Your task to perform on an android device: open app "Walmart Shopping & Grocery" Image 0: 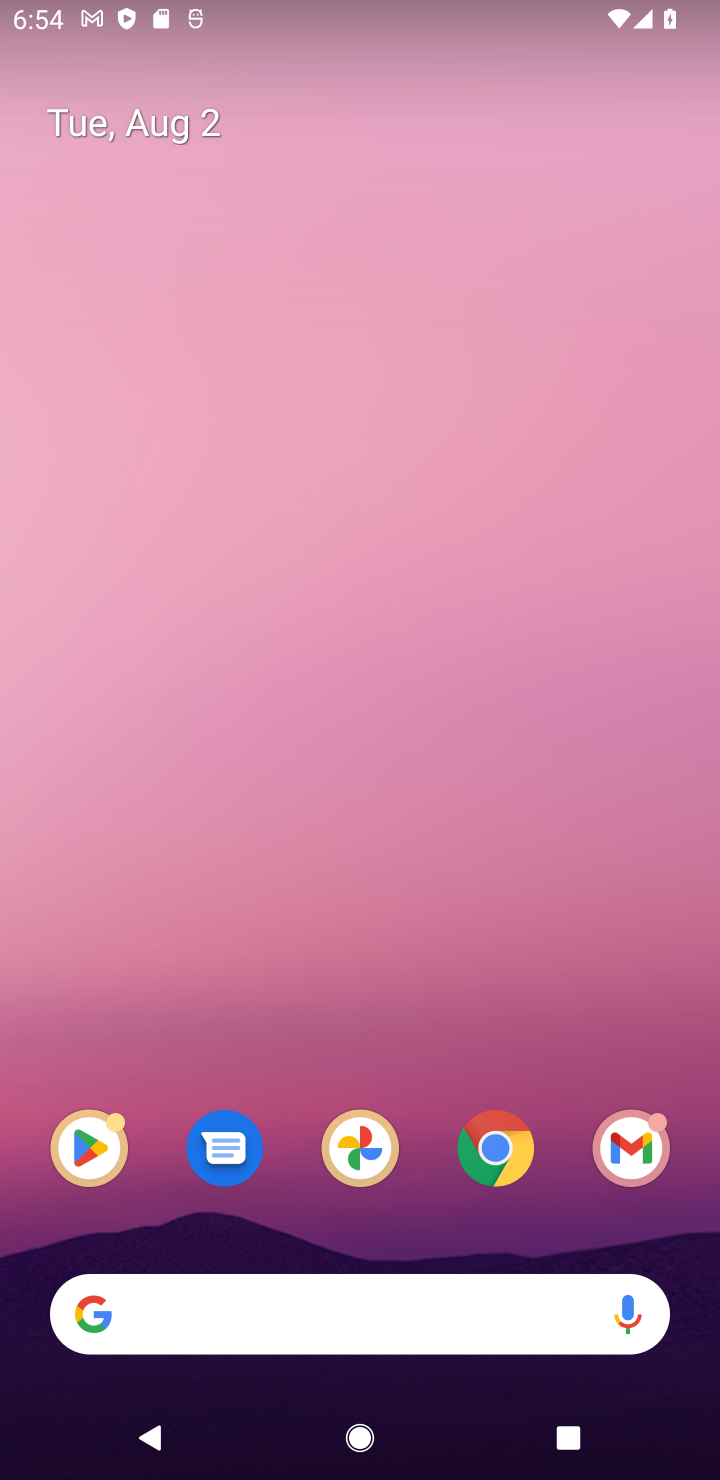
Step 0: drag from (588, 1084) to (207, 106)
Your task to perform on an android device: open app "Walmart Shopping & Grocery" Image 1: 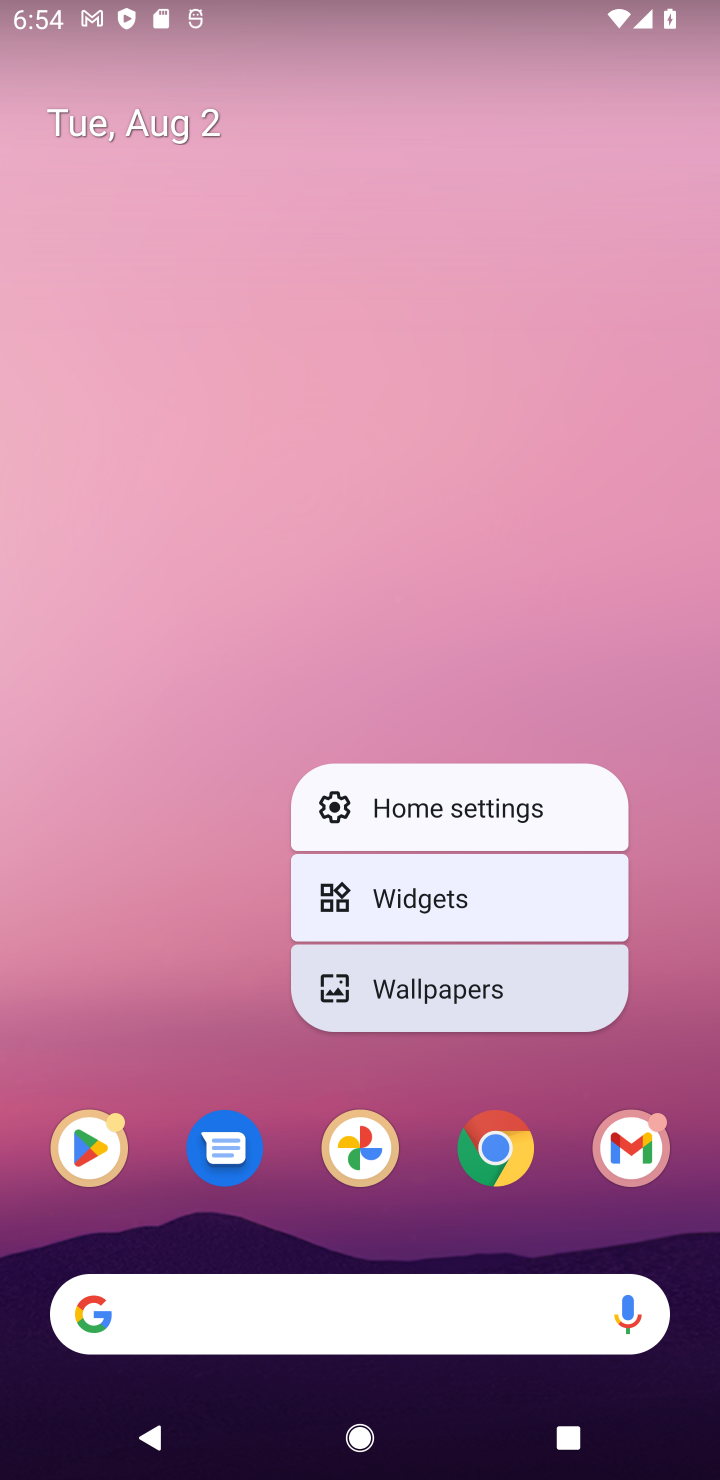
Step 1: click (436, 507)
Your task to perform on an android device: open app "Walmart Shopping & Grocery" Image 2: 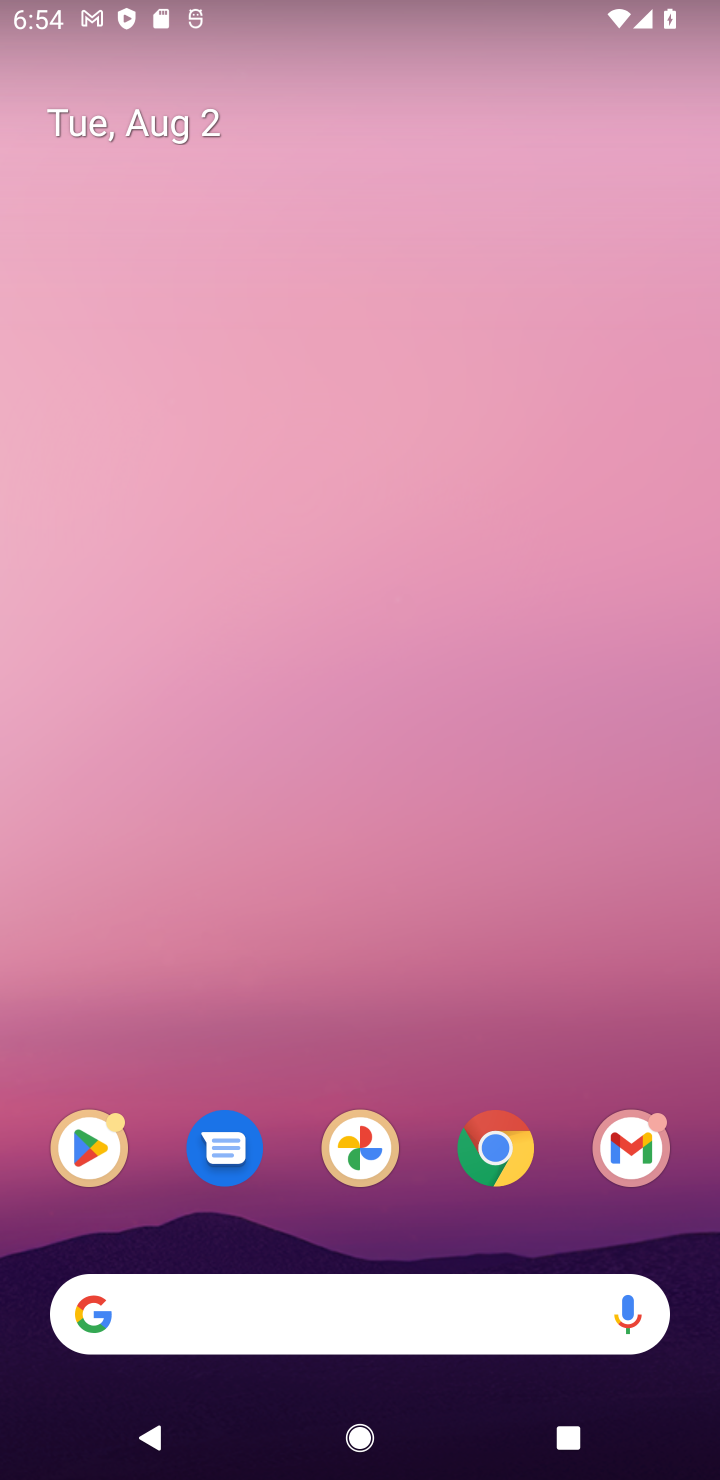
Step 2: drag from (583, 1117) to (328, 85)
Your task to perform on an android device: open app "Walmart Shopping & Grocery" Image 3: 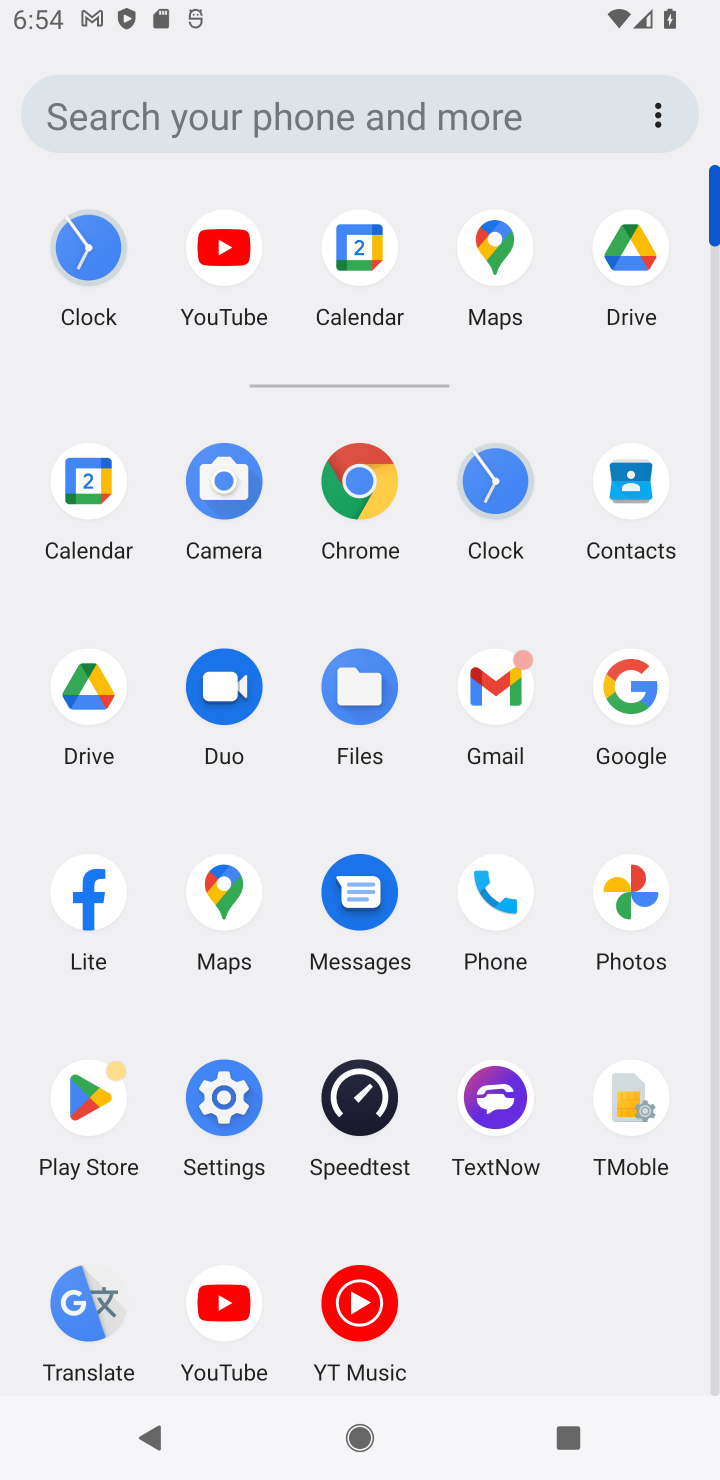
Step 3: click (105, 1116)
Your task to perform on an android device: open app "Walmart Shopping & Grocery" Image 4: 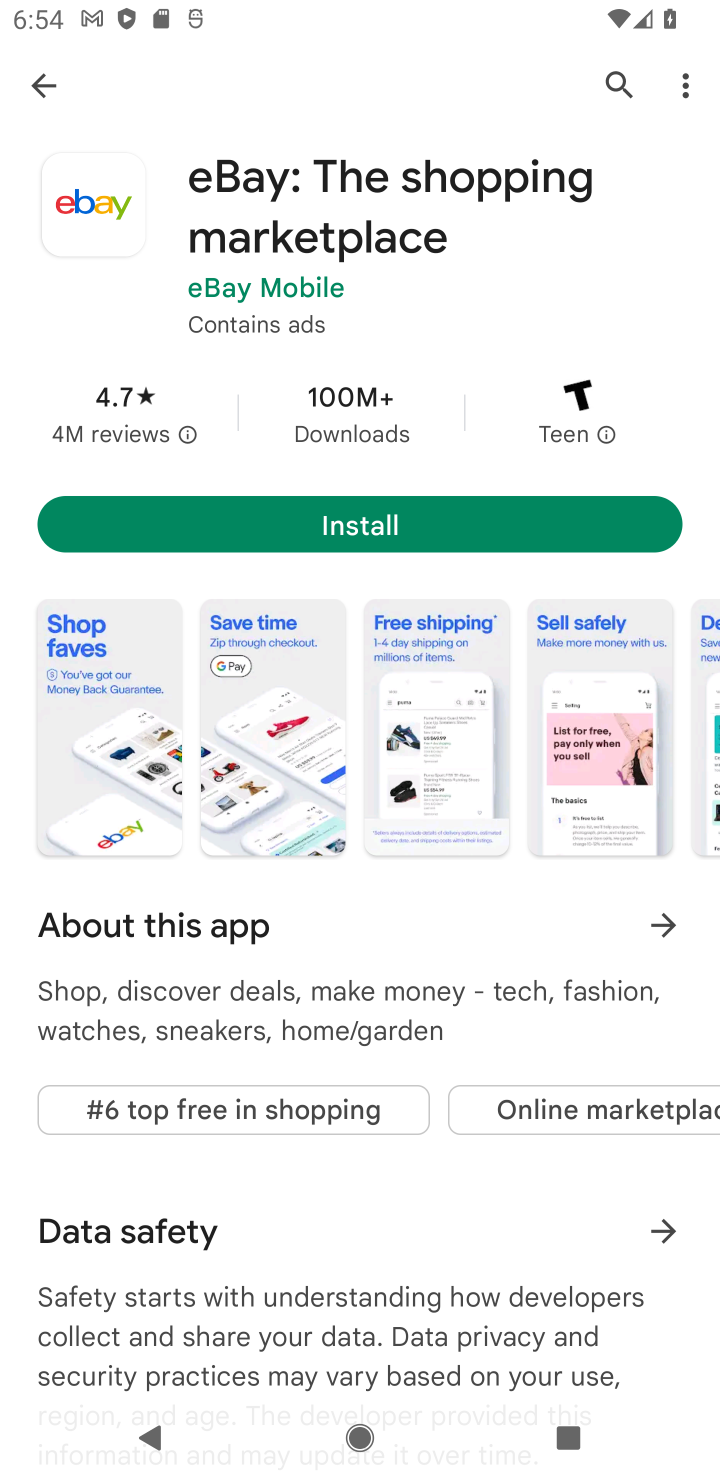
Step 4: press back button
Your task to perform on an android device: open app "Walmart Shopping & Grocery" Image 5: 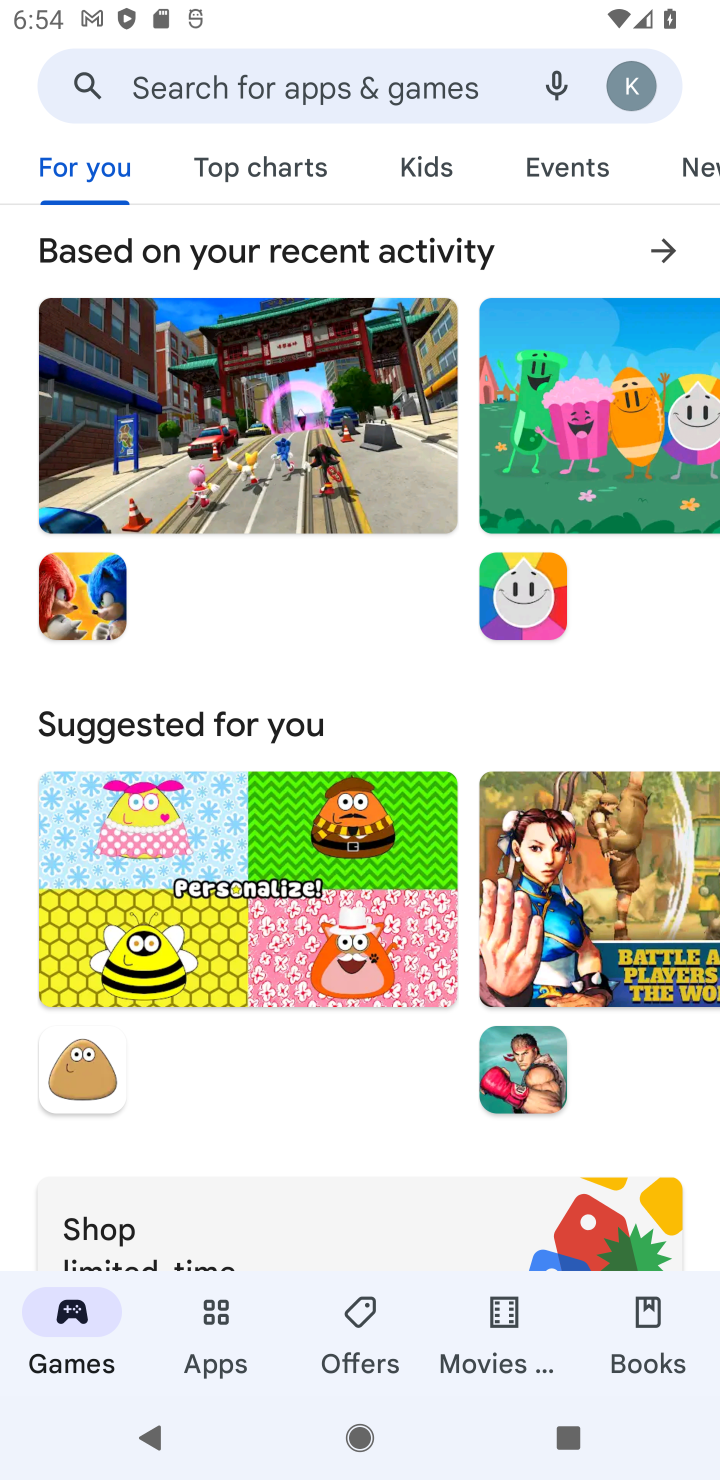
Step 5: click (124, 83)
Your task to perform on an android device: open app "Walmart Shopping & Grocery" Image 6: 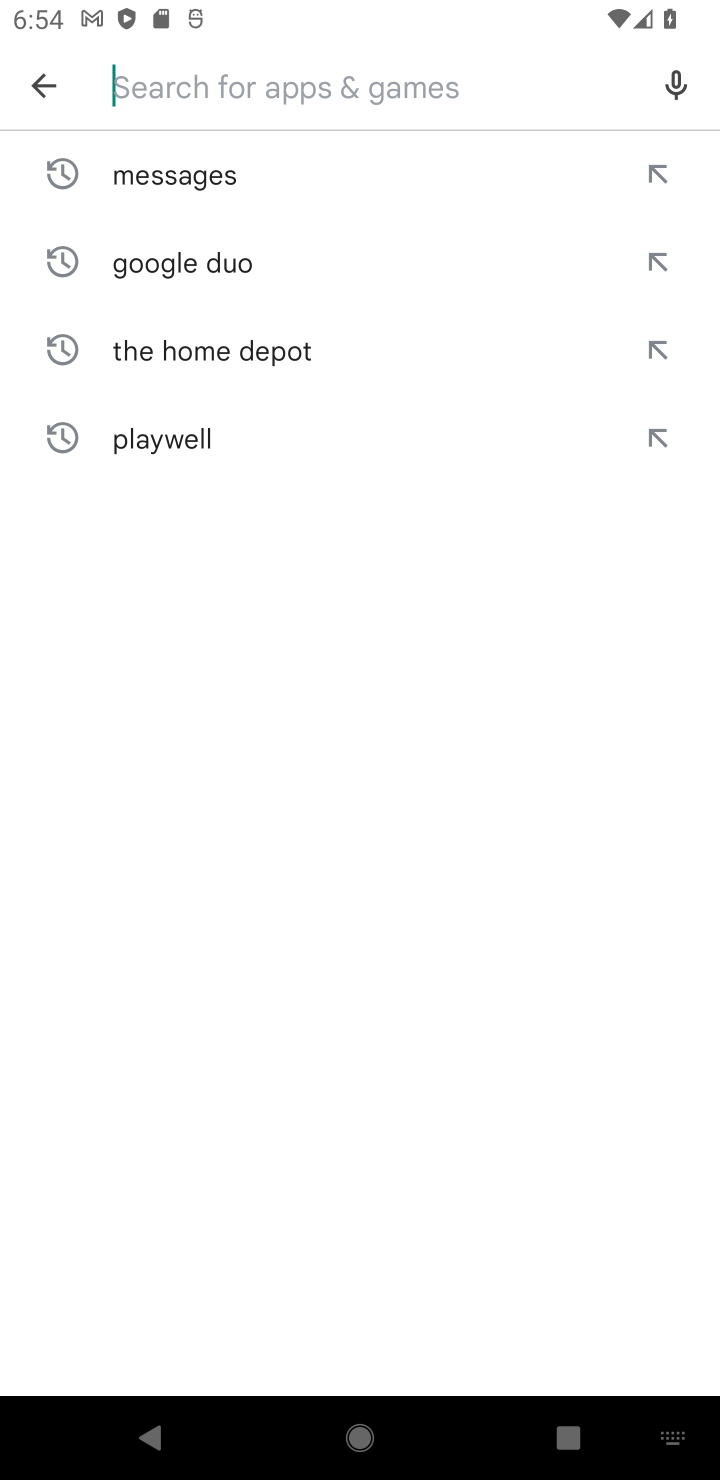
Step 6: type "Walmart Shopping & Grocery"
Your task to perform on an android device: open app "Walmart Shopping & Grocery" Image 7: 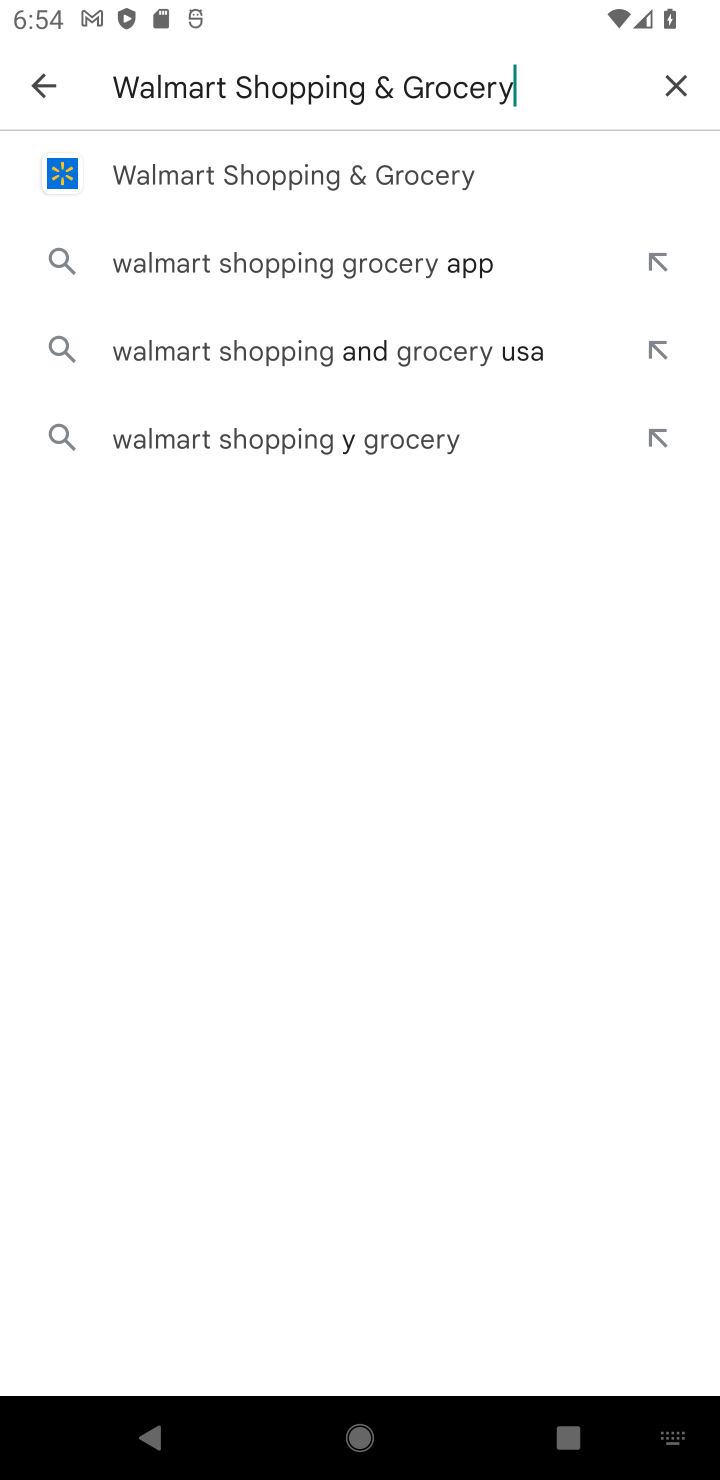
Step 7: click (246, 184)
Your task to perform on an android device: open app "Walmart Shopping & Grocery" Image 8: 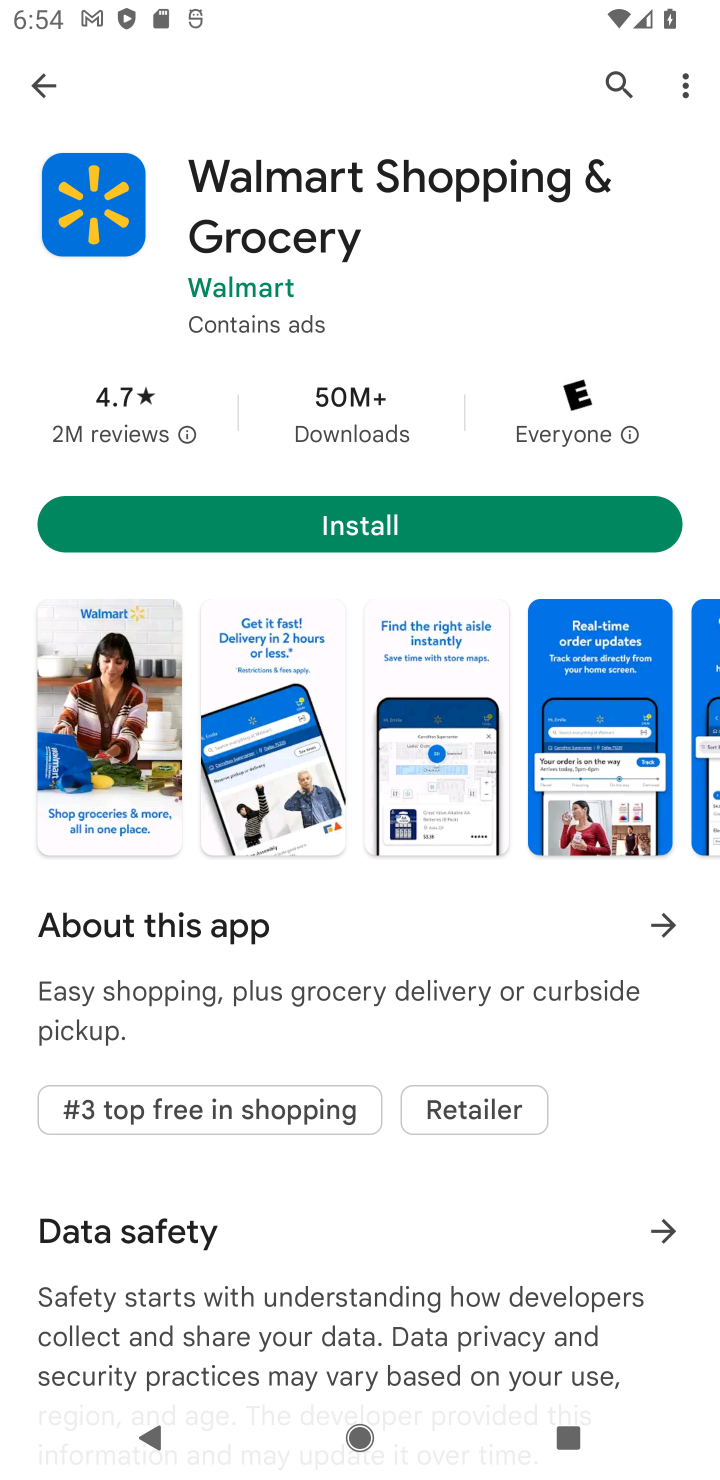
Step 8: task complete